Your task to perform on an android device: Open settings Image 0: 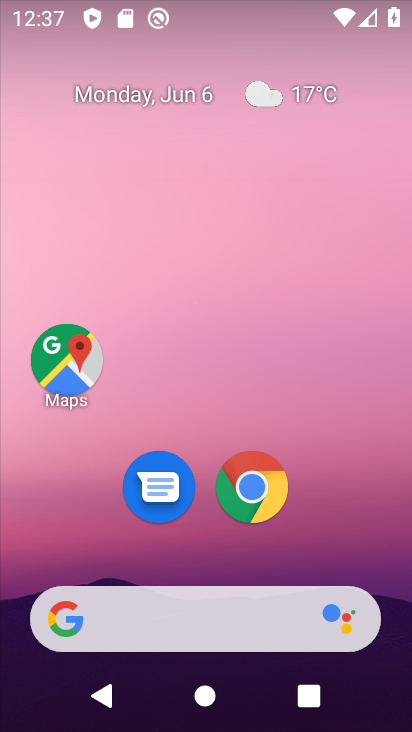
Step 0: drag from (198, 503) to (237, 24)
Your task to perform on an android device: Open settings Image 1: 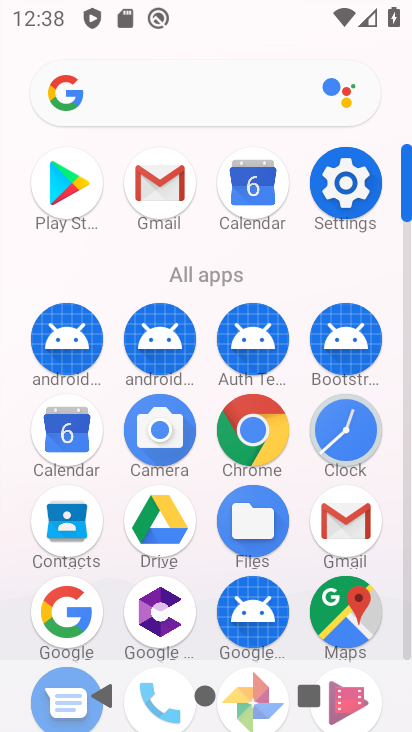
Step 1: click (347, 182)
Your task to perform on an android device: Open settings Image 2: 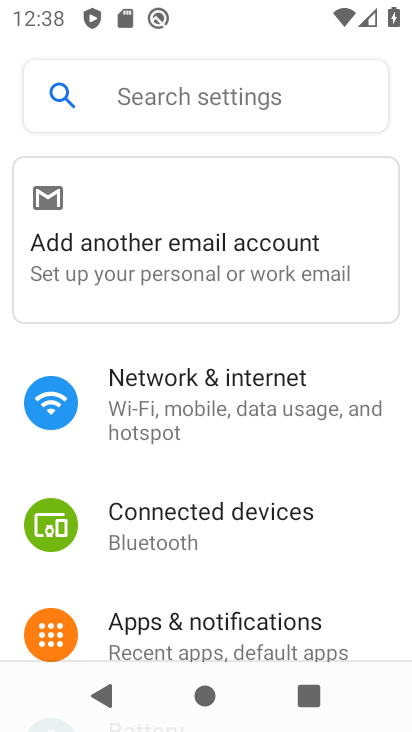
Step 2: task complete